Your task to perform on an android device: turn pop-ups off in chrome Image 0: 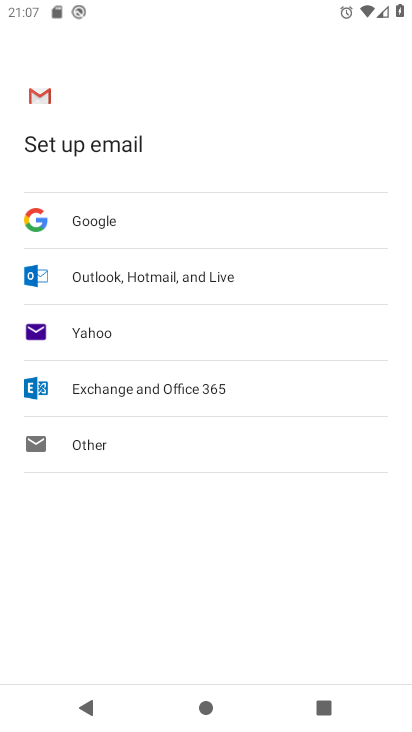
Step 0: press home button
Your task to perform on an android device: turn pop-ups off in chrome Image 1: 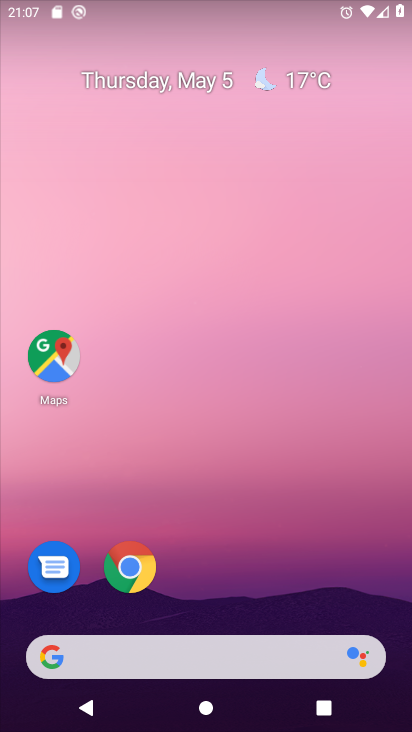
Step 1: drag from (228, 549) to (268, 82)
Your task to perform on an android device: turn pop-ups off in chrome Image 2: 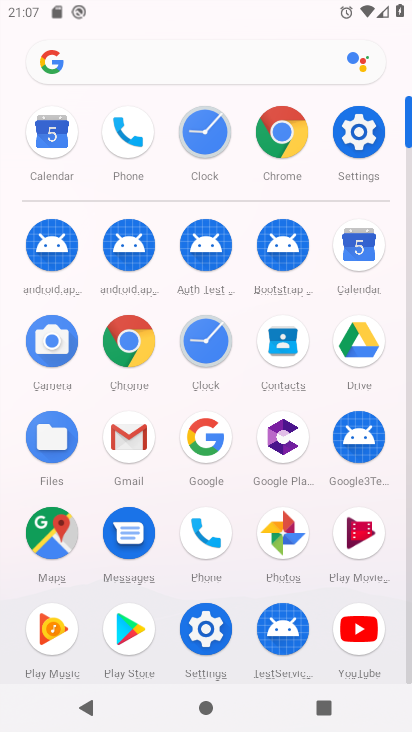
Step 2: click (288, 135)
Your task to perform on an android device: turn pop-ups off in chrome Image 3: 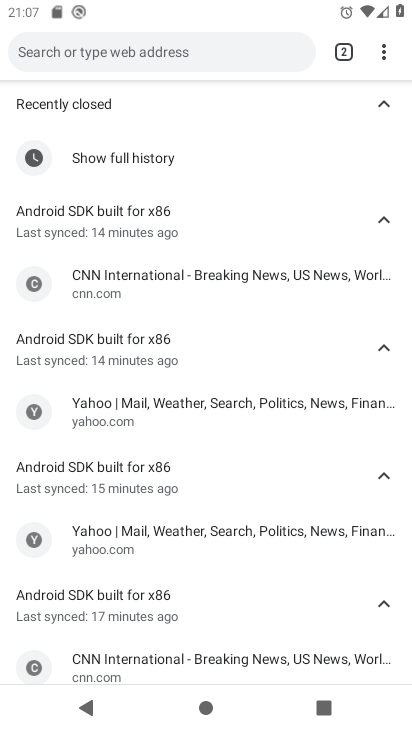
Step 3: drag from (382, 53) to (284, 442)
Your task to perform on an android device: turn pop-ups off in chrome Image 4: 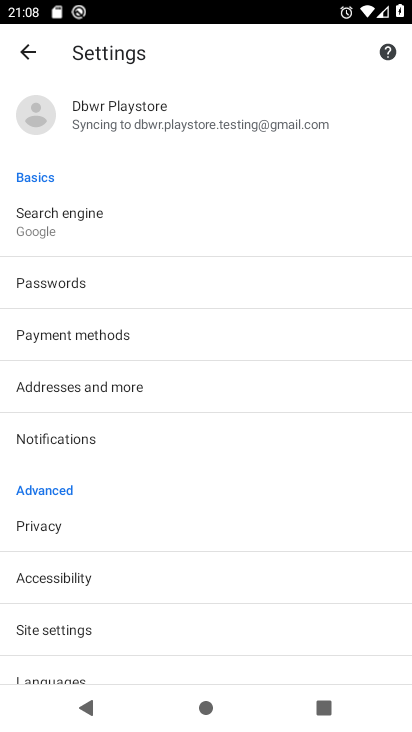
Step 4: click (168, 630)
Your task to perform on an android device: turn pop-ups off in chrome Image 5: 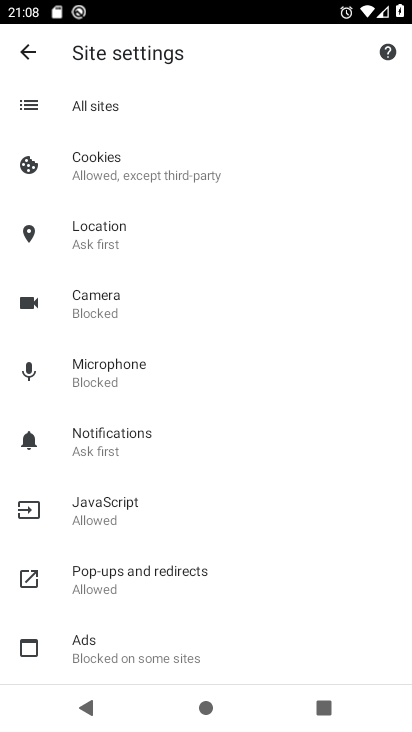
Step 5: click (188, 581)
Your task to perform on an android device: turn pop-ups off in chrome Image 6: 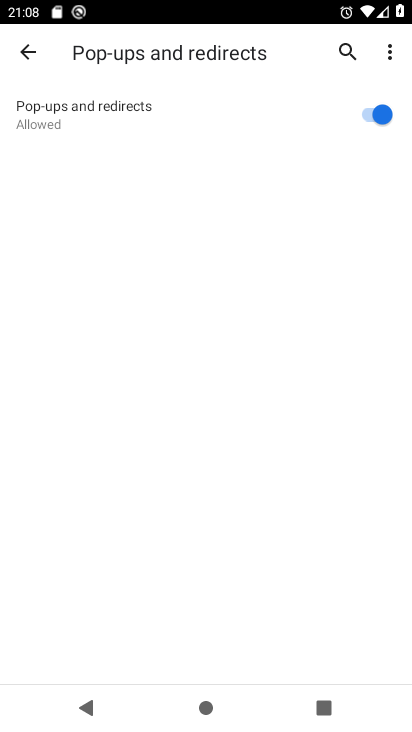
Step 6: click (368, 112)
Your task to perform on an android device: turn pop-ups off in chrome Image 7: 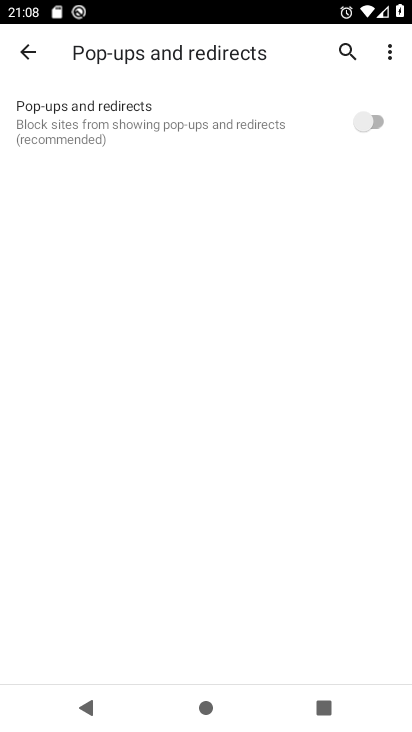
Step 7: task complete